Your task to perform on an android device: delete a single message in the gmail app Image 0: 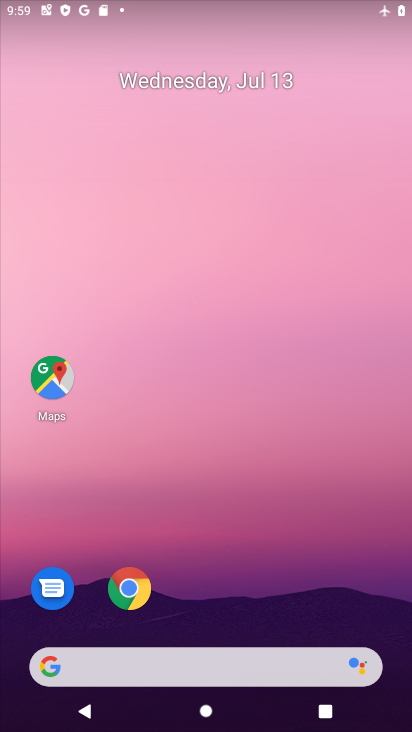
Step 0: drag from (217, 605) to (279, 88)
Your task to perform on an android device: delete a single message in the gmail app Image 1: 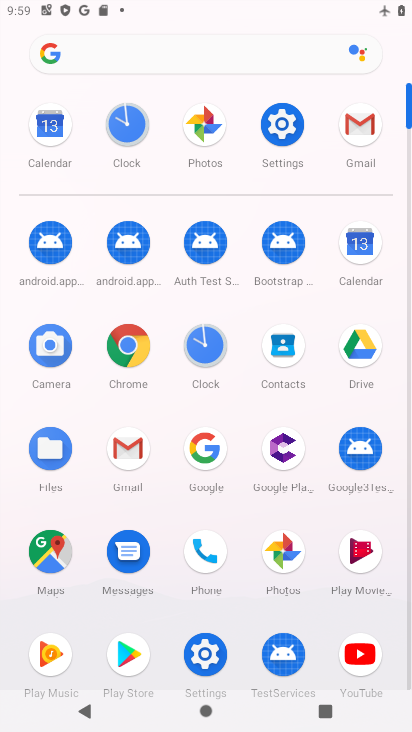
Step 1: click (121, 450)
Your task to perform on an android device: delete a single message in the gmail app Image 2: 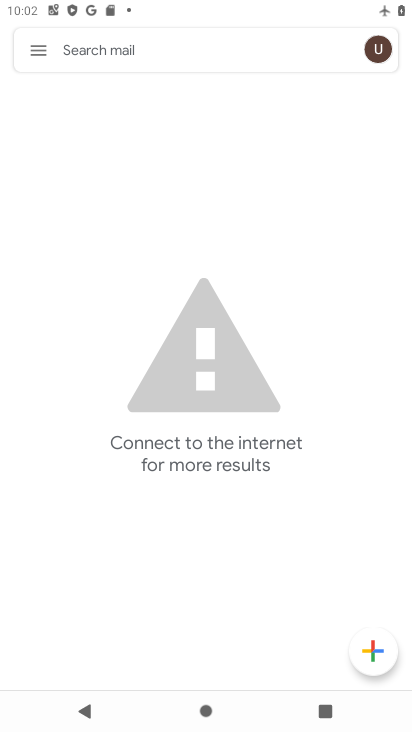
Step 2: task complete